Your task to perform on an android device: Go to notification settings Image 0: 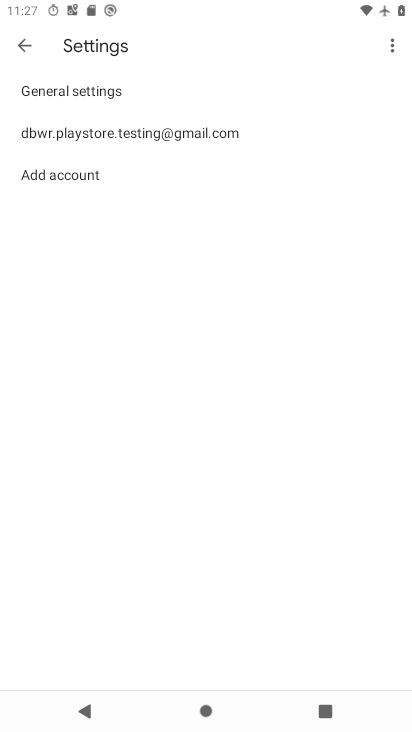
Step 0: press home button
Your task to perform on an android device: Go to notification settings Image 1: 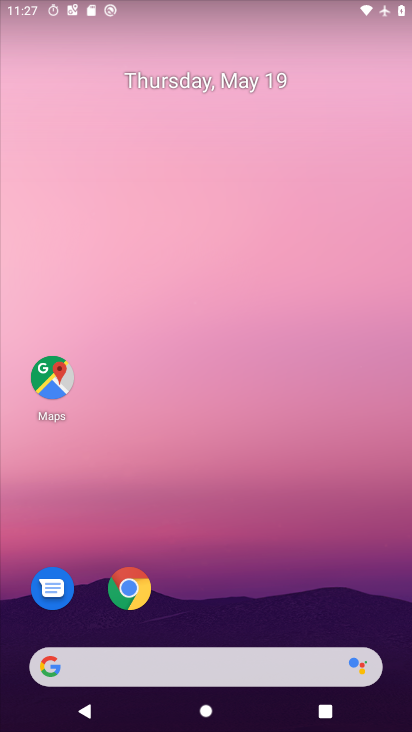
Step 1: drag from (170, 651) to (330, 125)
Your task to perform on an android device: Go to notification settings Image 2: 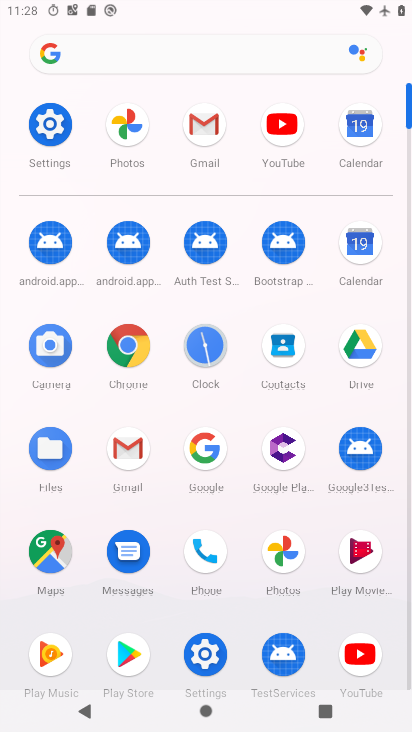
Step 2: click (56, 135)
Your task to perform on an android device: Go to notification settings Image 3: 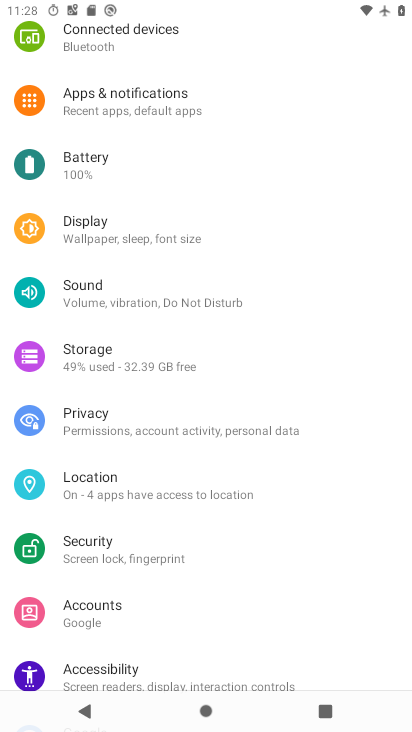
Step 3: click (147, 102)
Your task to perform on an android device: Go to notification settings Image 4: 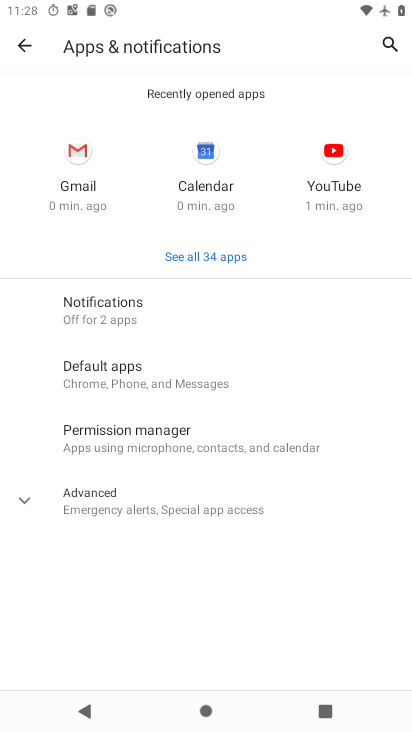
Step 4: click (117, 312)
Your task to perform on an android device: Go to notification settings Image 5: 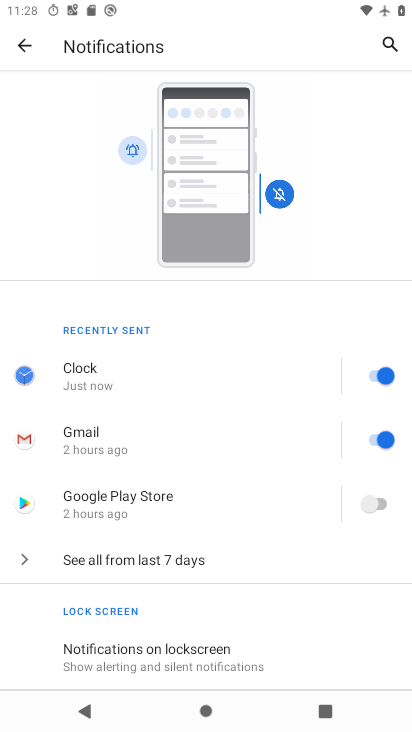
Step 5: task complete